Your task to perform on an android device: Go to Maps Image 0: 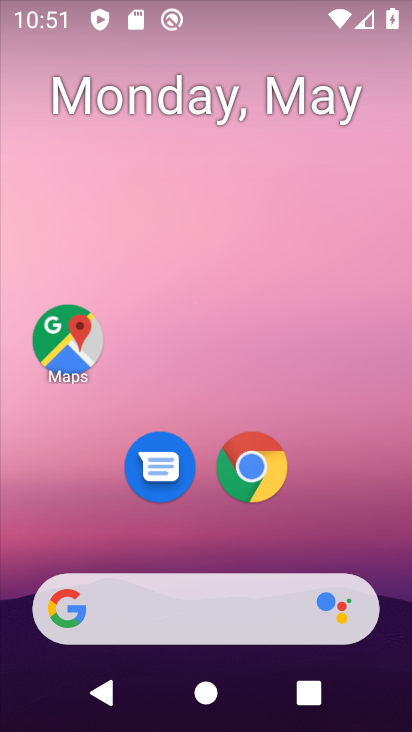
Step 0: click (67, 345)
Your task to perform on an android device: Go to Maps Image 1: 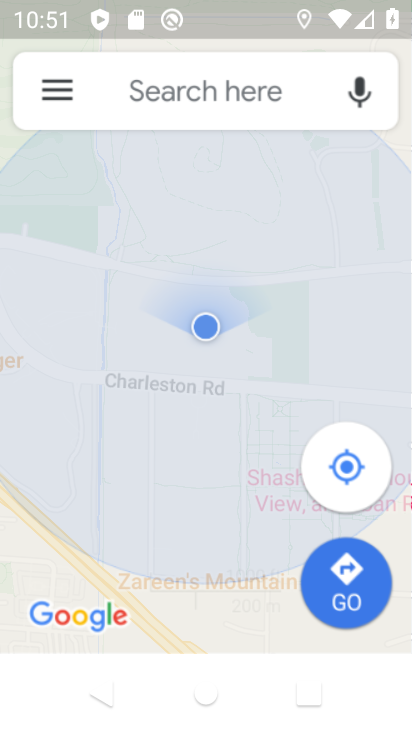
Step 1: task complete